Your task to perform on an android device: Open privacy settings Image 0: 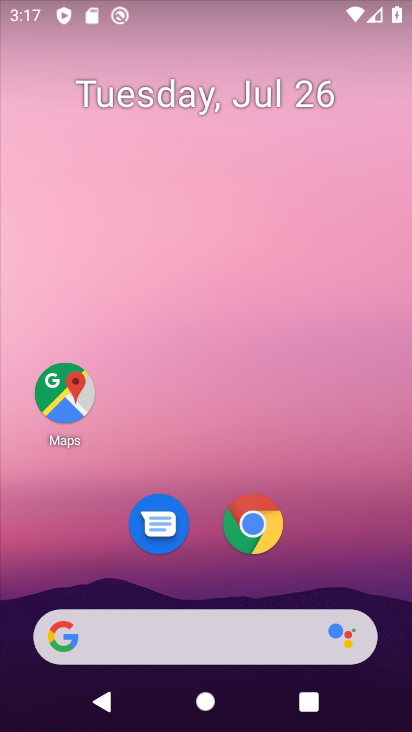
Step 0: drag from (349, 556) to (307, 59)
Your task to perform on an android device: Open privacy settings Image 1: 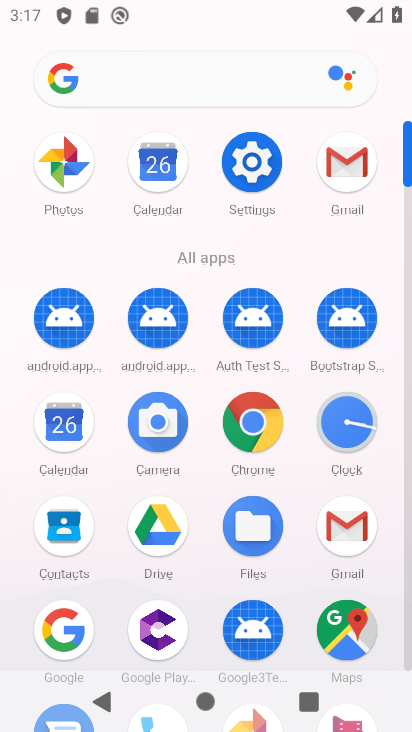
Step 1: click (252, 169)
Your task to perform on an android device: Open privacy settings Image 2: 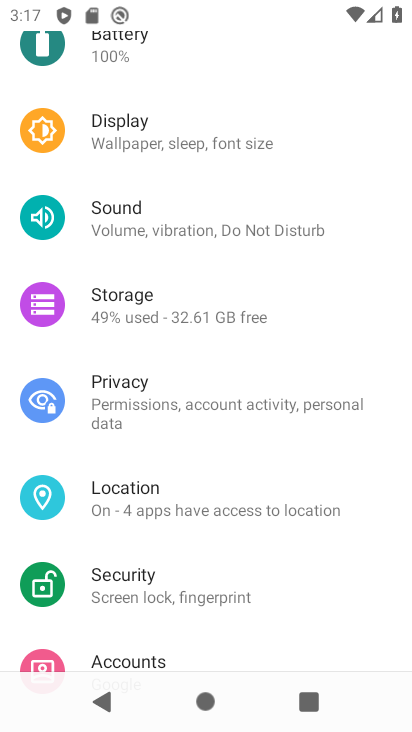
Step 2: click (249, 397)
Your task to perform on an android device: Open privacy settings Image 3: 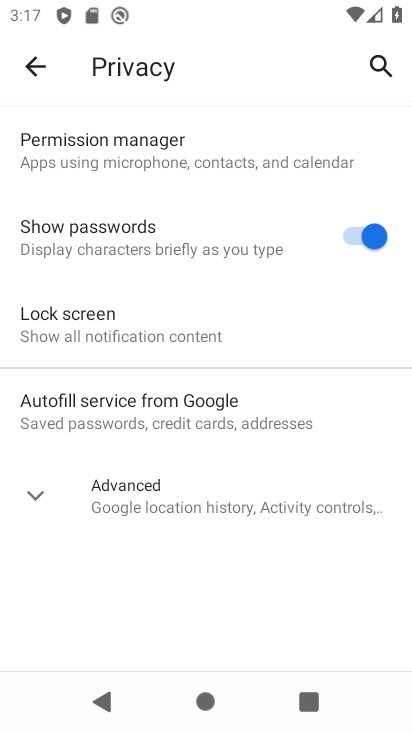
Step 3: task complete